Your task to perform on an android device: delete a single message in the gmail app Image 0: 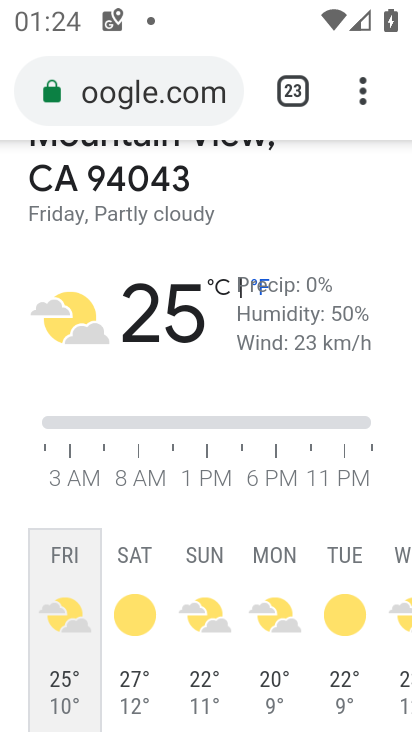
Step 0: press home button
Your task to perform on an android device: delete a single message in the gmail app Image 1: 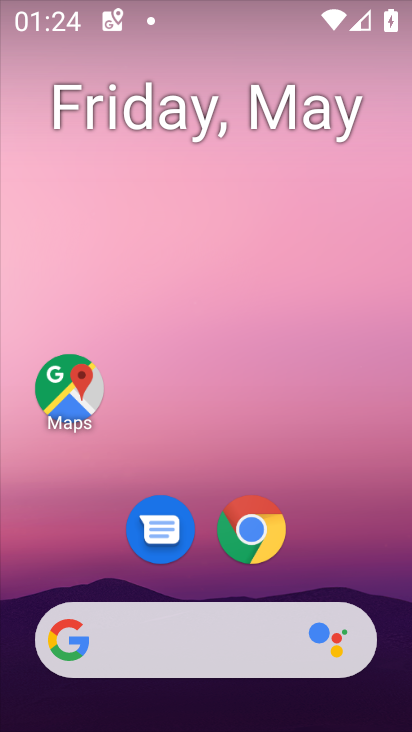
Step 1: drag from (217, 431) to (230, 245)
Your task to perform on an android device: delete a single message in the gmail app Image 2: 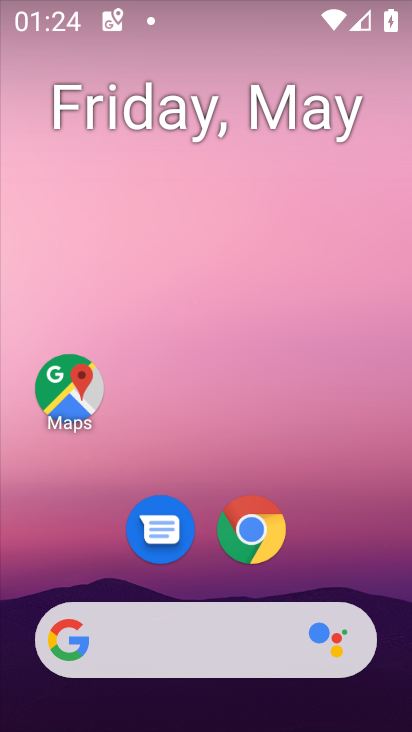
Step 2: drag from (340, 512) to (322, 312)
Your task to perform on an android device: delete a single message in the gmail app Image 3: 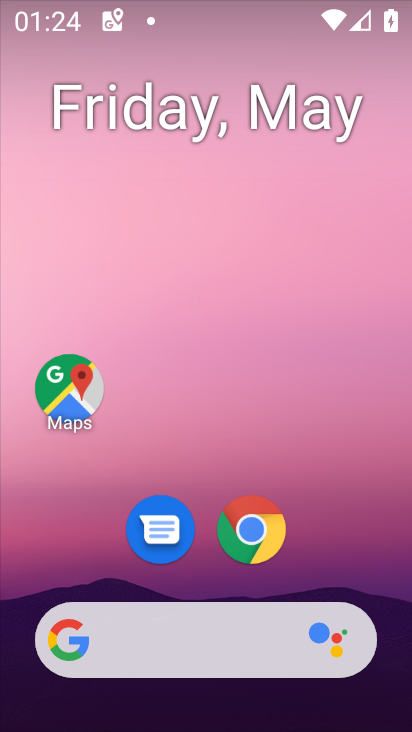
Step 3: drag from (319, 631) to (322, 290)
Your task to perform on an android device: delete a single message in the gmail app Image 4: 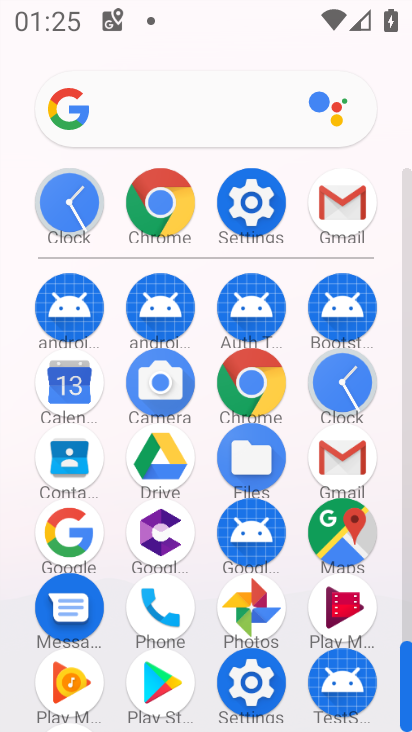
Step 4: click (328, 457)
Your task to perform on an android device: delete a single message in the gmail app Image 5: 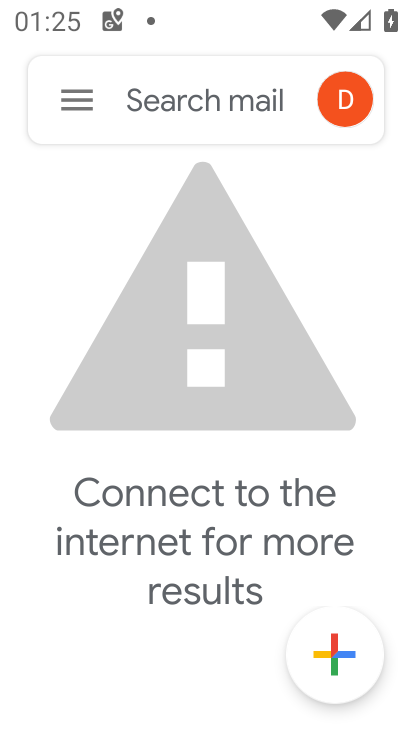
Step 5: click (78, 105)
Your task to perform on an android device: delete a single message in the gmail app Image 6: 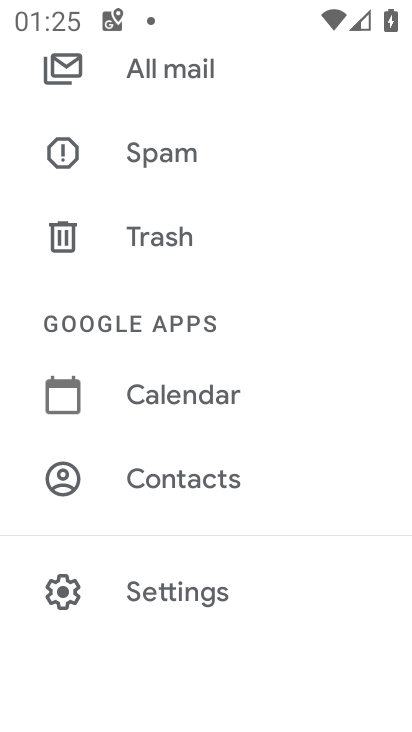
Step 6: click (153, 74)
Your task to perform on an android device: delete a single message in the gmail app Image 7: 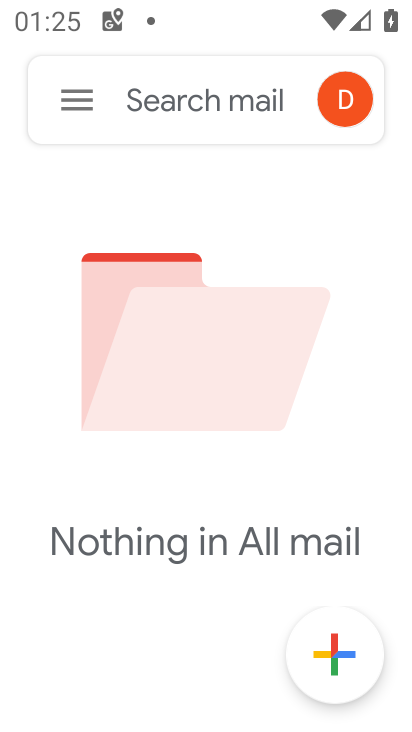
Step 7: task complete